Your task to perform on an android device: Check the news Image 0: 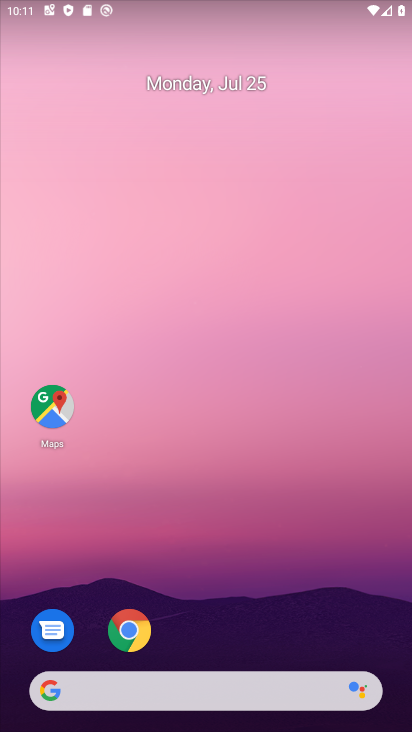
Step 0: press home button
Your task to perform on an android device: Check the news Image 1: 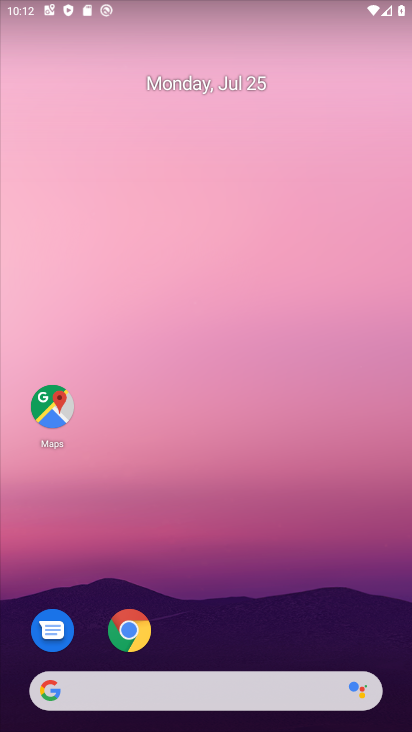
Step 1: task complete